Your task to perform on an android device: toggle show notifications on the lock screen Image 0: 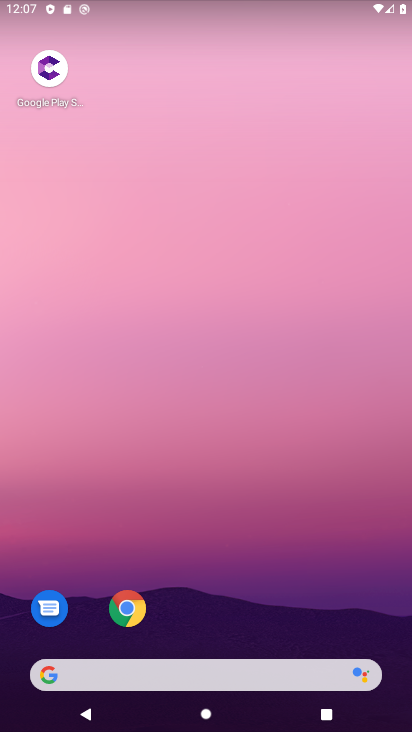
Step 0: drag from (251, 681) to (305, 256)
Your task to perform on an android device: toggle show notifications on the lock screen Image 1: 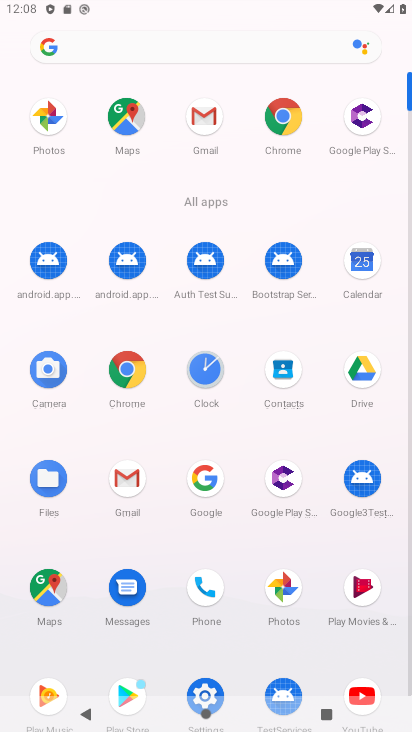
Step 1: click (201, 682)
Your task to perform on an android device: toggle show notifications on the lock screen Image 2: 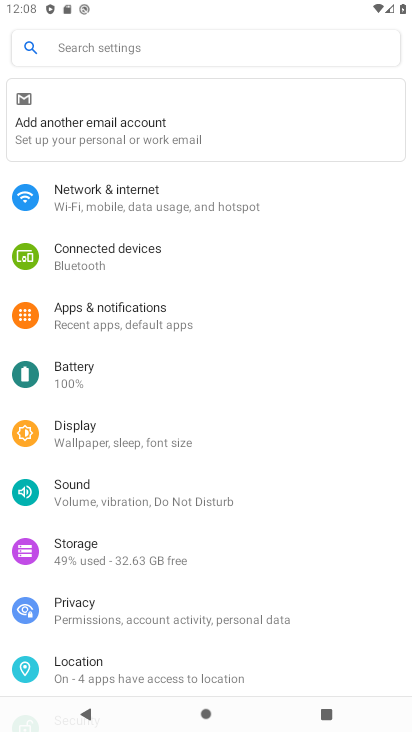
Step 2: click (172, 313)
Your task to perform on an android device: toggle show notifications on the lock screen Image 3: 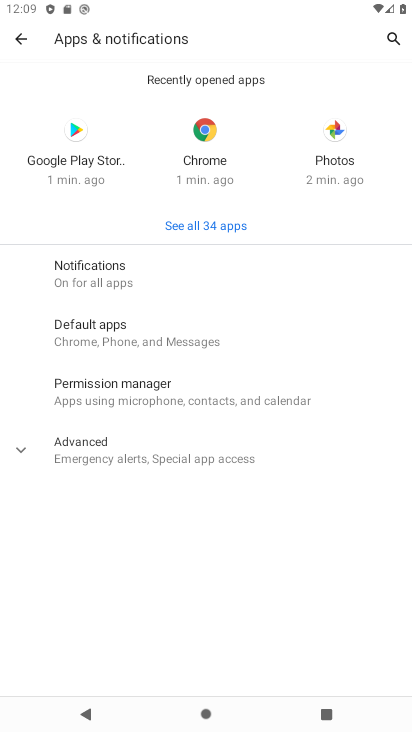
Step 3: click (225, 272)
Your task to perform on an android device: toggle show notifications on the lock screen Image 4: 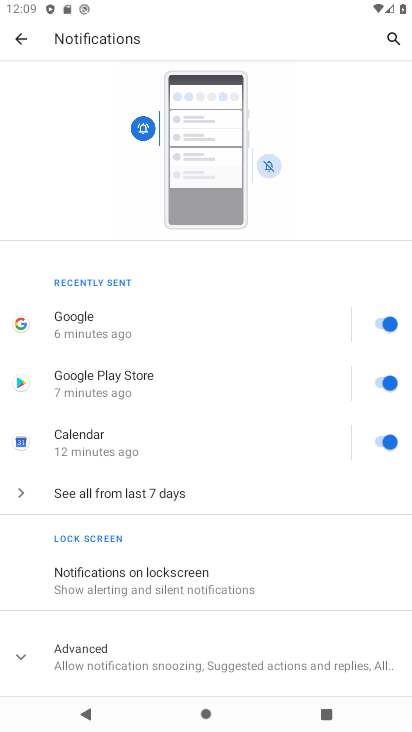
Step 4: click (164, 583)
Your task to perform on an android device: toggle show notifications on the lock screen Image 5: 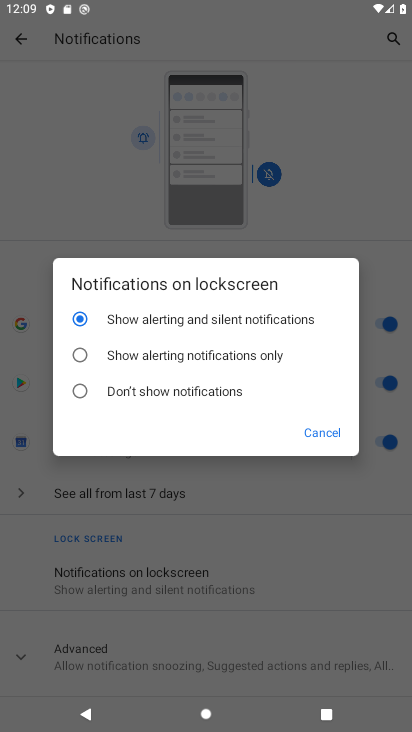
Step 5: task complete